Your task to perform on an android device: Set the phone to "Do not disturb". Image 0: 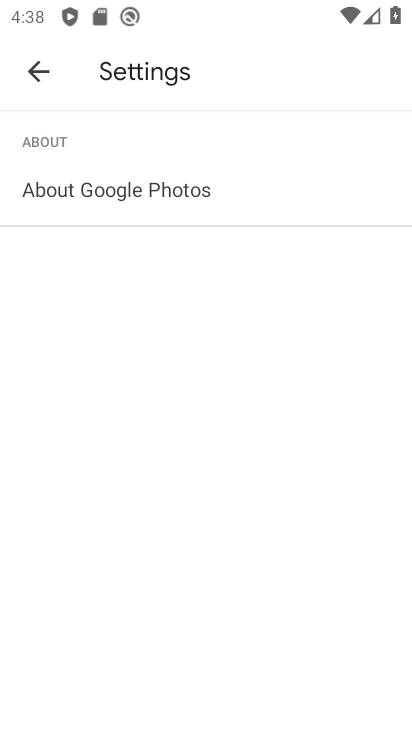
Step 0: drag from (200, 592) to (229, 155)
Your task to perform on an android device: Set the phone to "Do not disturb". Image 1: 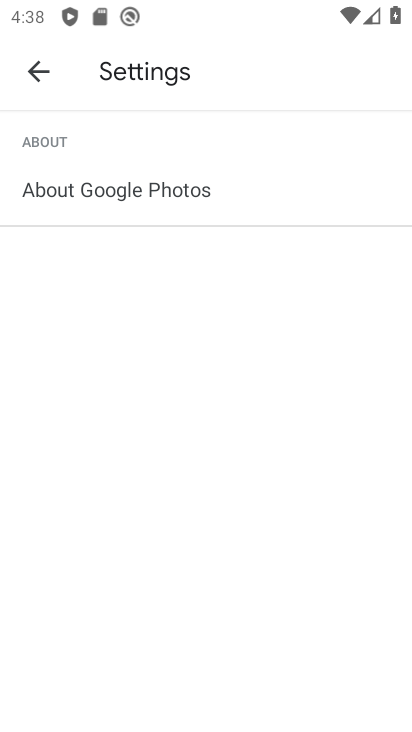
Step 1: press home button
Your task to perform on an android device: Set the phone to "Do not disturb". Image 2: 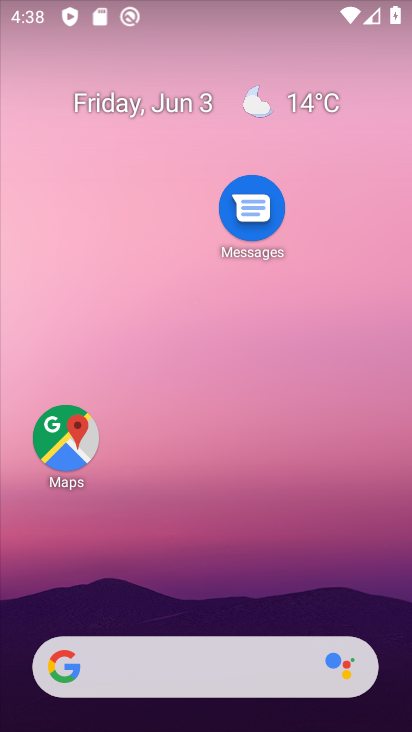
Step 2: drag from (214, 606) to (225, 195)
Your task to perform on an android device: Set the phone to "Do not disturb". Image 3: 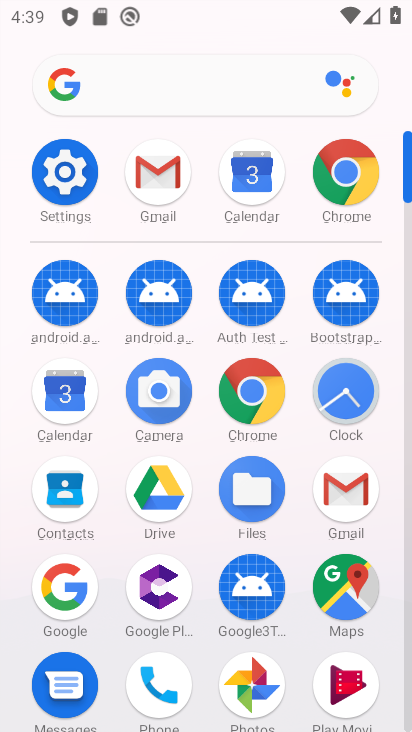
Step 3: click (60, 180)
Your task to perform on an android device: Set the phone to "Do not disturb". Image 4: 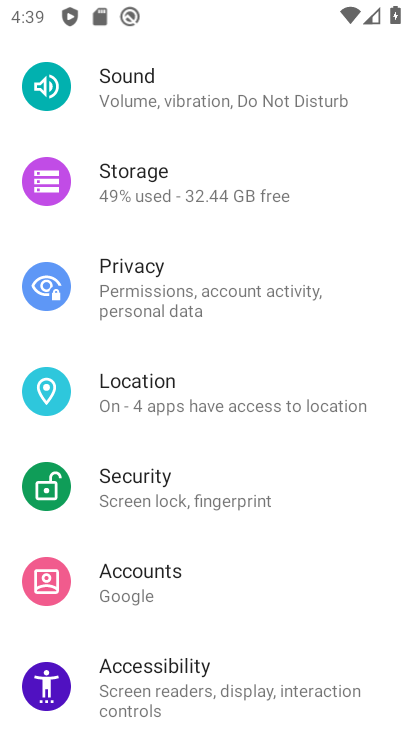
Step 4: drag from (210, 536) to (228, 371)
Your task to perform on an android device: Set the phone to "Do not disturb". Image 5: 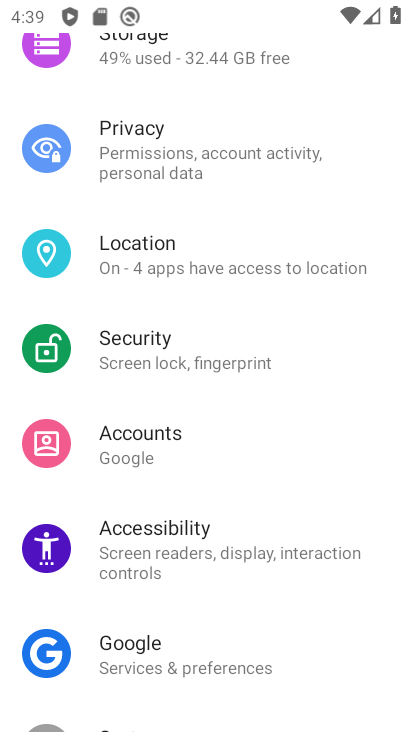
Step 5: drag from (207, 270) to (195, 462)
Your task to perform on an android device: Set the phone to "Do not disturb". Image 6: 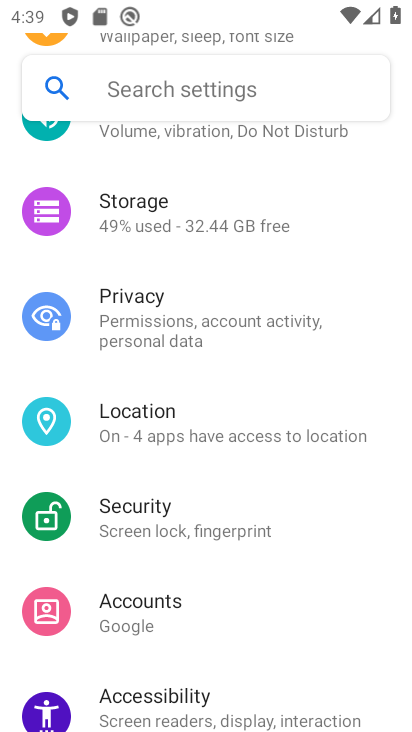
Step 6: drag from (218, 354) to (209, 586)
Your task to perform on an android device: Set the phone to "Do not disturb". Image 7: 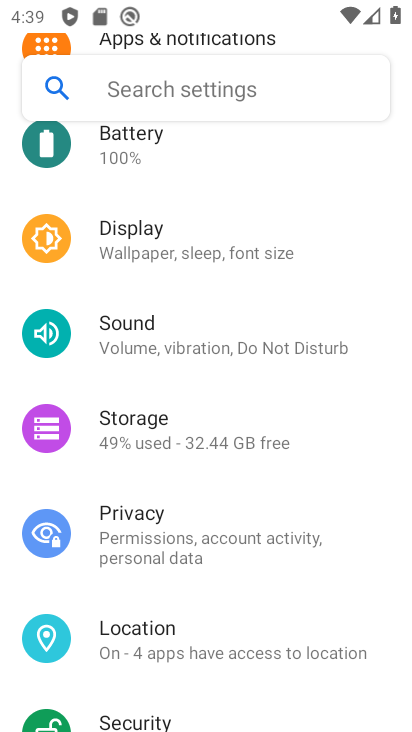
Step 7: click (152, 339)
Your task to perform on an android device: Set the phone to "Do not disturb". Image 8: 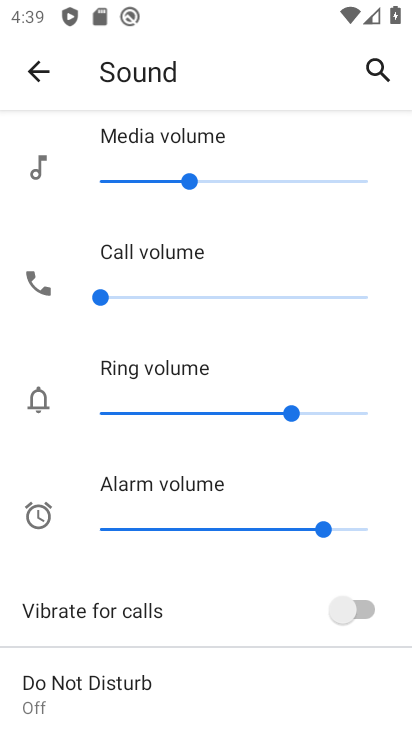
Step 8: drag from (186, 602) to (233, 332)
Your task to perform on an android device: Set the phone to "Do not disturb". Image 9: 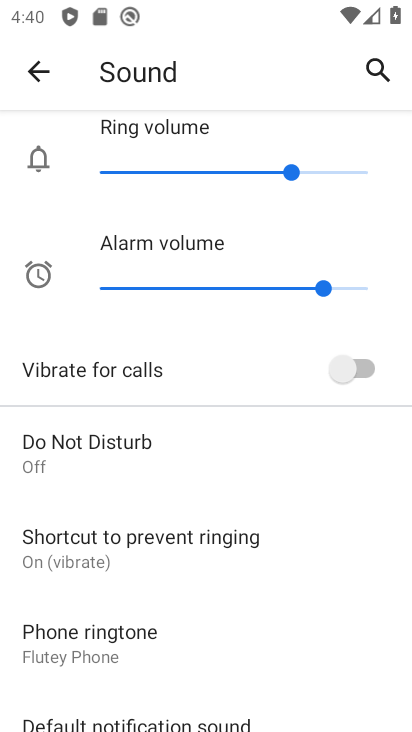
Step 9: click (118, 468)
Your task to perform on an android device: Set the phone to "Do not disturb". Image 10: 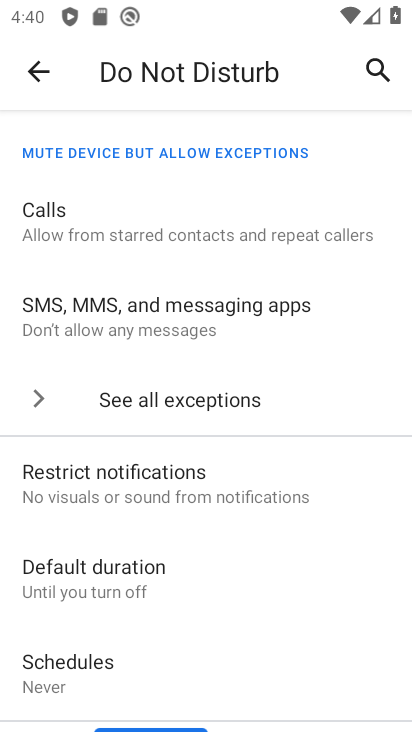
Step 10: drag from (168, 638) to (195, 366)
Your task to perform on an android device: Set the phone to "Do not disturb". Image 11: 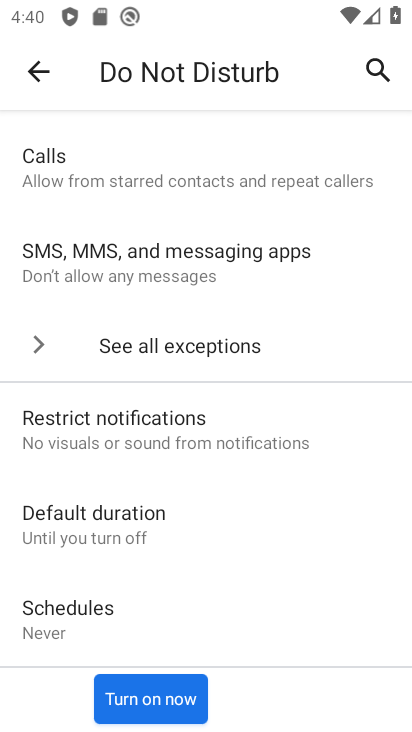
Step 11: click (142, 699)
Your task to perform on an android device: Set the phone to "Do not disturb". Image 12: 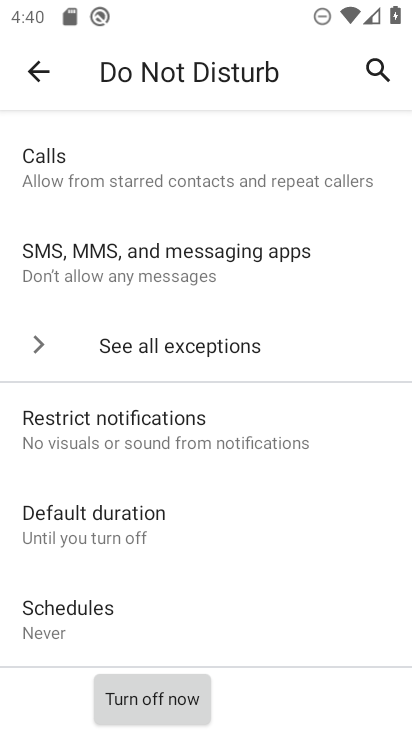
Step 12: task complete